Your task to perform on an android device: Clear the shopping cart on amazon. Search for amazon basics triple a on amazon, select the first entry, add it to the cart, then select checkout. Image 0: 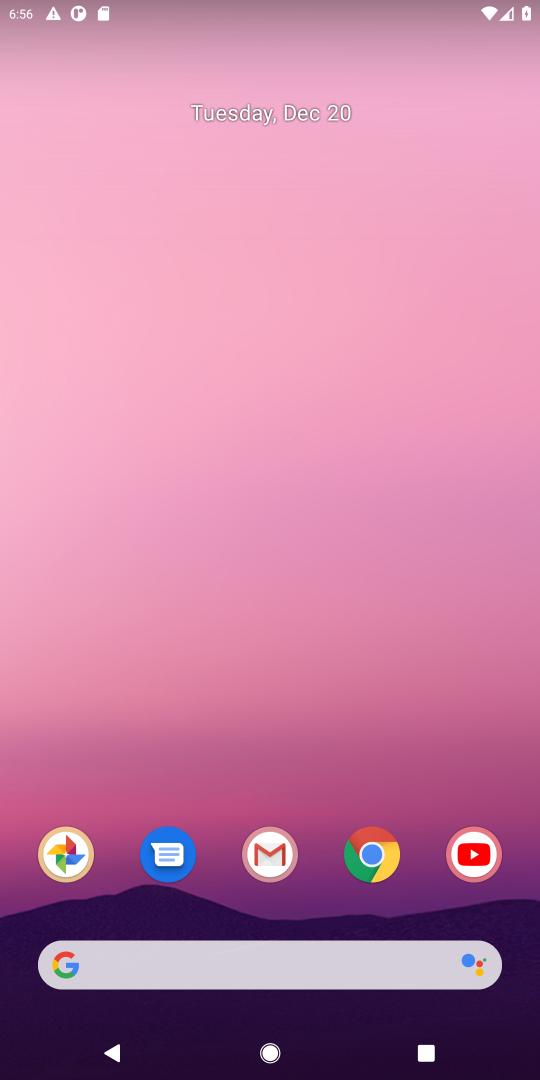
Step 0: click (377, 865)
Your task to perform on an android device: Clear the shopping cart on amazon. Search for amazon basics triple a on amazon, select the first entry, add it to the cart, then select checkout. Image 1: 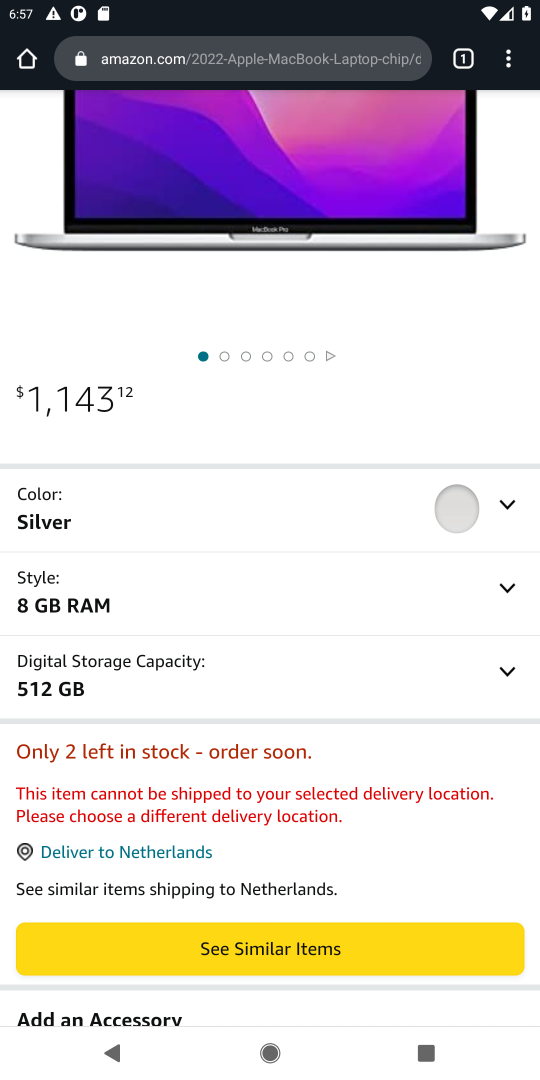
Step 1: drag from (313, 322) to (310, 823)
Your task to perform on an android device: Clear the shopping cart on amazon. Search for amazon basics triple a on amazon, select the first entry, add it to the cart, then select checkout. Image 2: 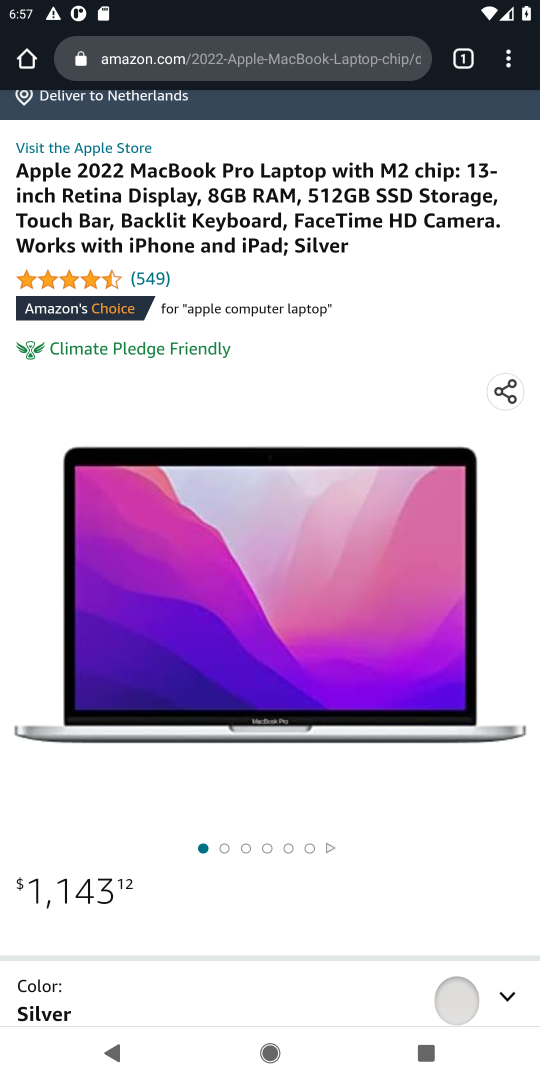
Step 2: drag from (331, 174) to (350, 603)
Your task to perform on an android device: Clear the shopping cart on amazon. Search for amazon basics triple a on amazon, select the first entry, add it to the cart, then select checkout. Image 3: 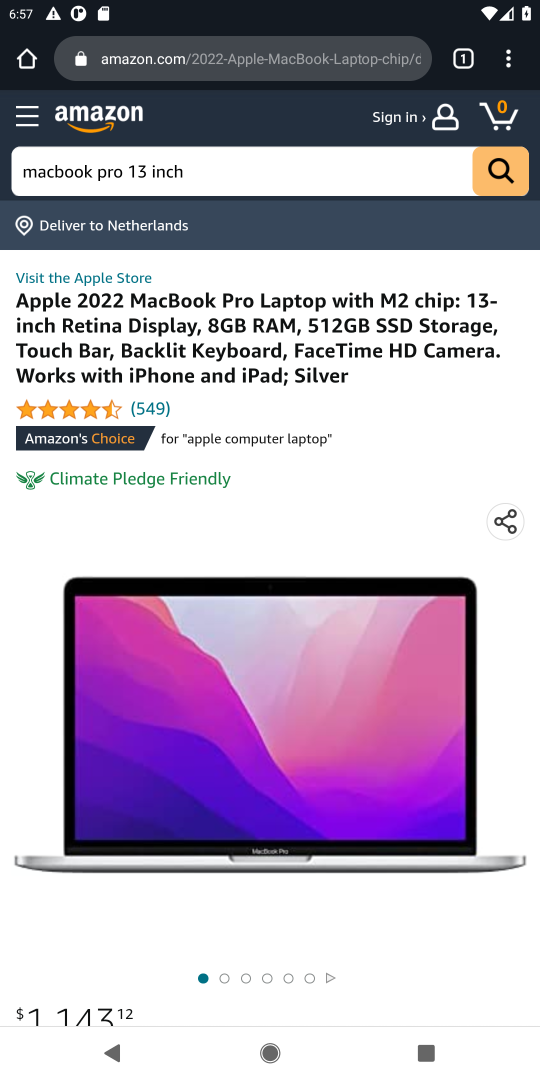
Step 3: click (511, 119)
Your task to perform on an android device: Clear the shopping cart on amazon. Search for amazon basics triple a on amazon, select the first entry, add it to the cart, then select checkout. Image 4: 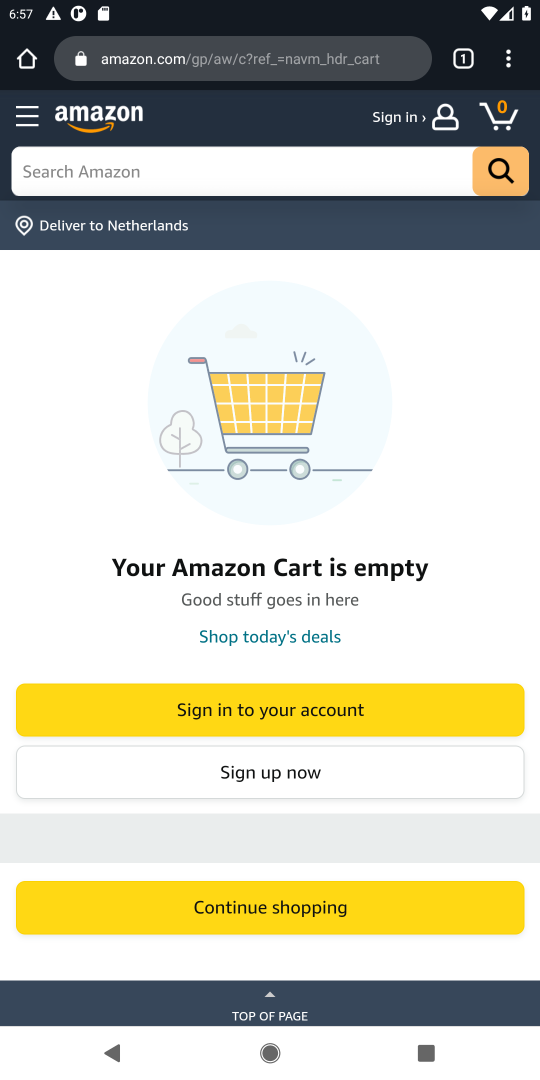
Step 4: click (72, 176)
Your task to perform on an android device: Clear the shopping cart on amazon. Search for amazon basics triple a on amazon, select the first entry, add it to the cart, then select checkout. Image 5: 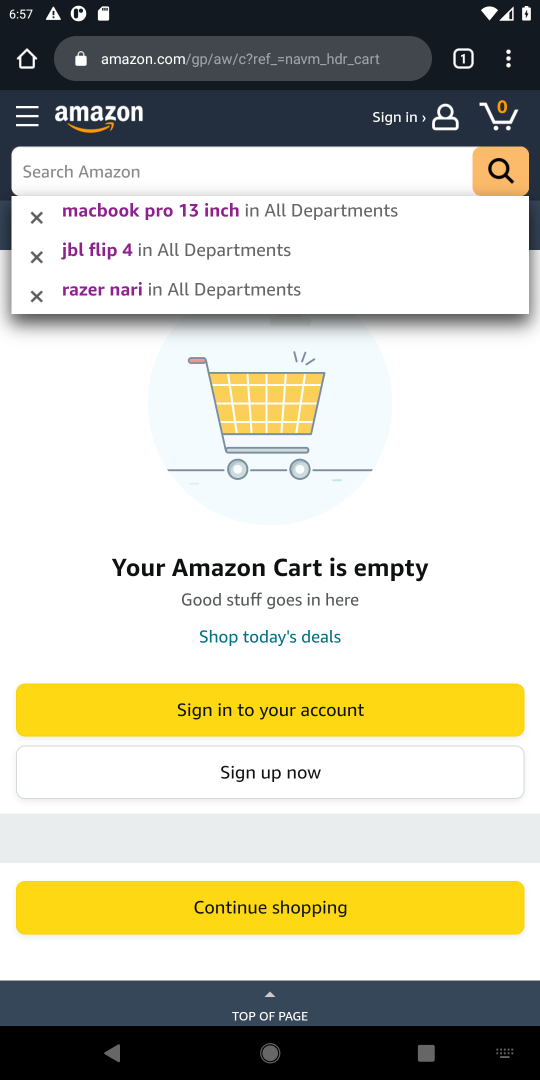
Step 5: type "amazon basics triple a "
Your task to perform on an android device: Clear the shopping cart on amazon. Search for amazon basics triple a on amazon, select the first entry, add it to the cart, then select checkout. Image 6: 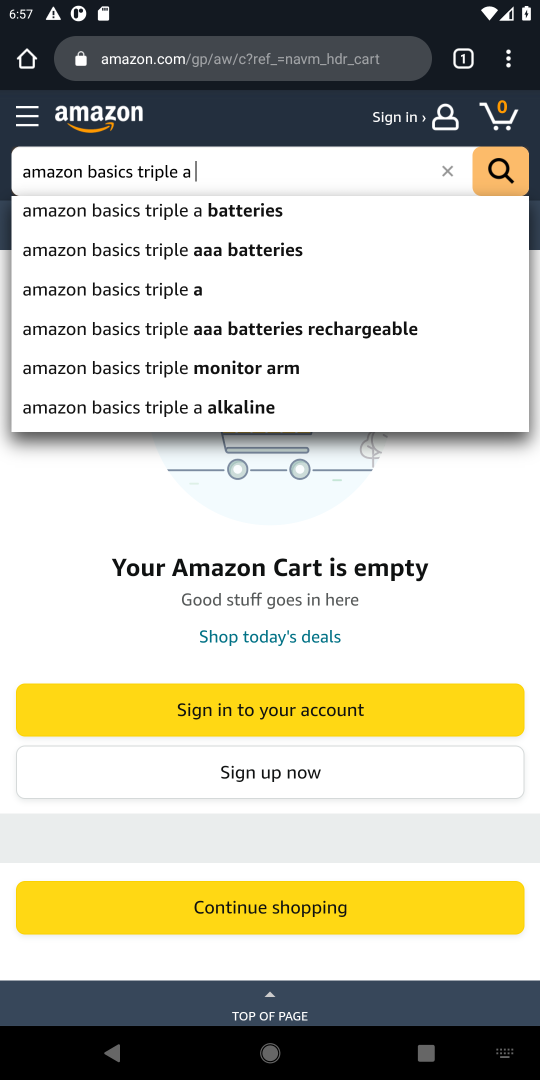
Step 6: click (162, 219)
Your task to perform on an android device: Clear the shopping cart on amazon. Search for amazon basics triple a on amazon, select the first entry, add it to the cart, then select checkout. Image 7: 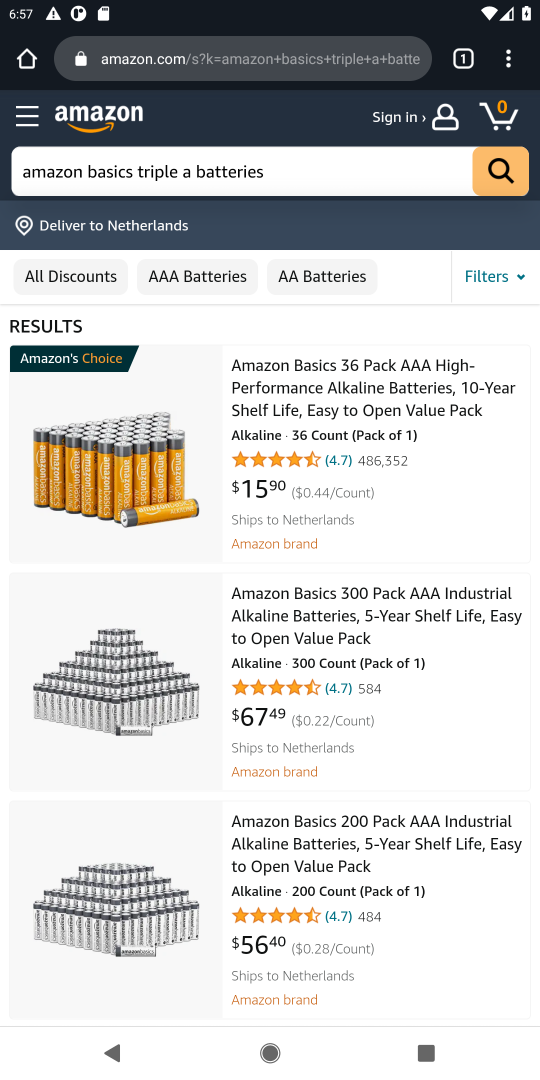
Step 7: click (325, 450)
Your task to perform on an android device: Clear the shopping cart on amazon. Search for amazon basics triple a on amazon, select the first entry, add it to the cart, then select checkout. Image 8: 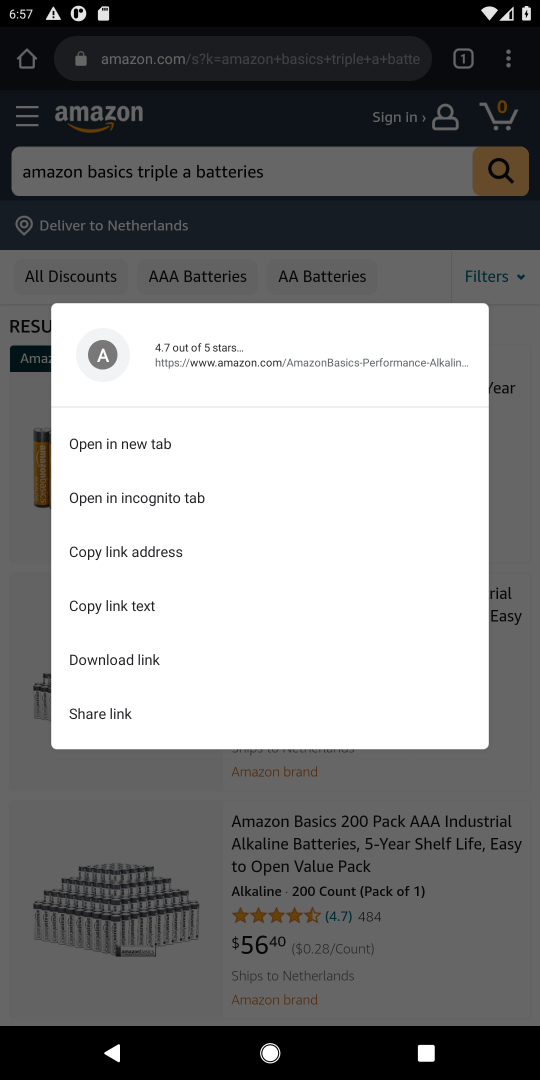
Step 8: click (498, 392)
Your task to perform on an android device: Clear the shopping cart on amazon. Search for amazon basics triple a on amazon, select the first entry, add it to the cart, then select checkout. Image 9: 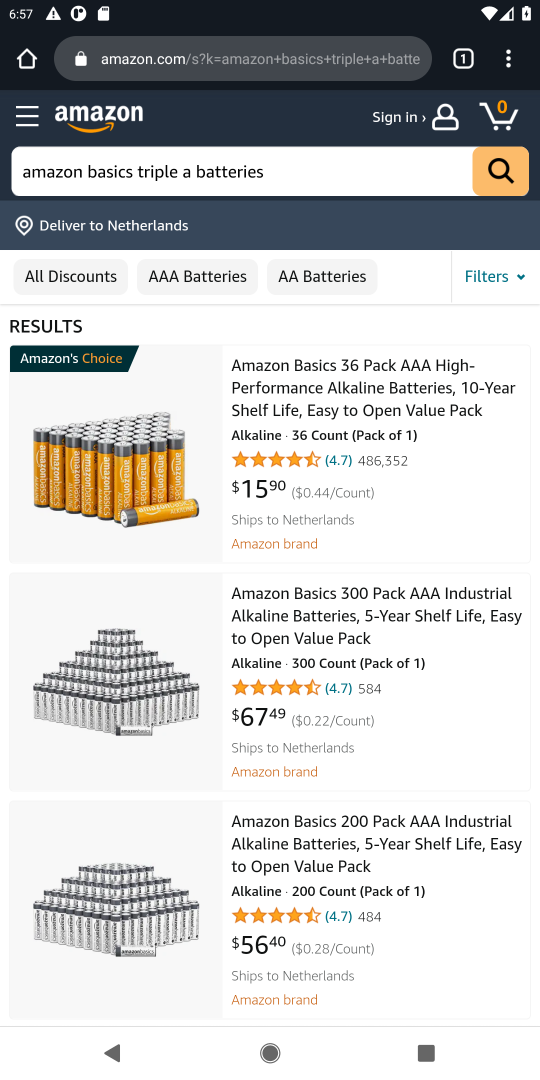
Step 9: click (378, 388)
Your task to perform on an android device: Clear the shopping cart on amazon. Search for amazon basics triple a on amazon, select the first entry, add it to the cart, then select checkout. Image 10: 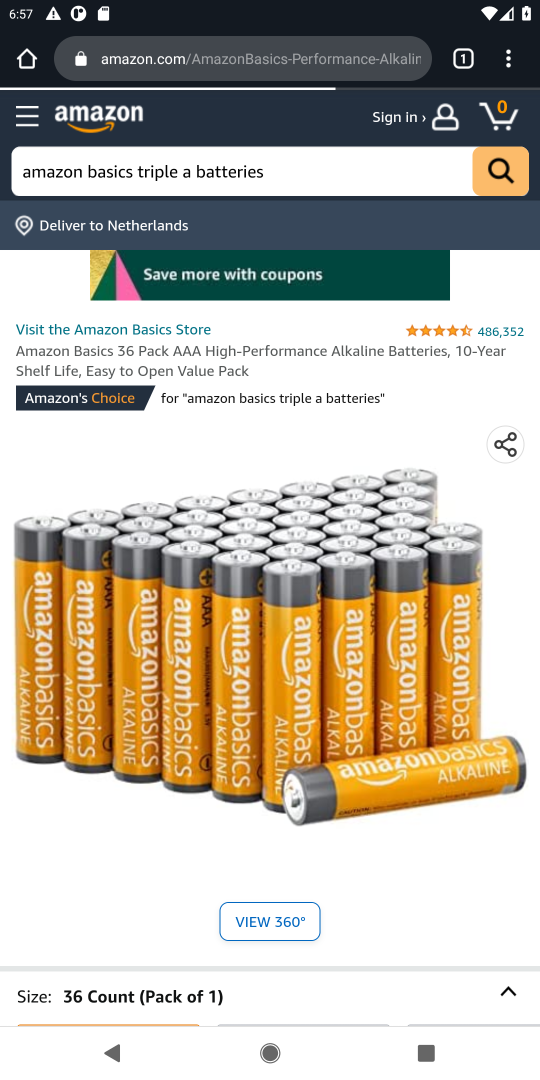
Step 10: drag from (280, 702) to (291, 162)
Your task to perform on an android device: Clear the shopping cart on amazon. Search for amazon basics triple a on amazon, select the first entry, add it to the cart, then select checkout. Image 11: 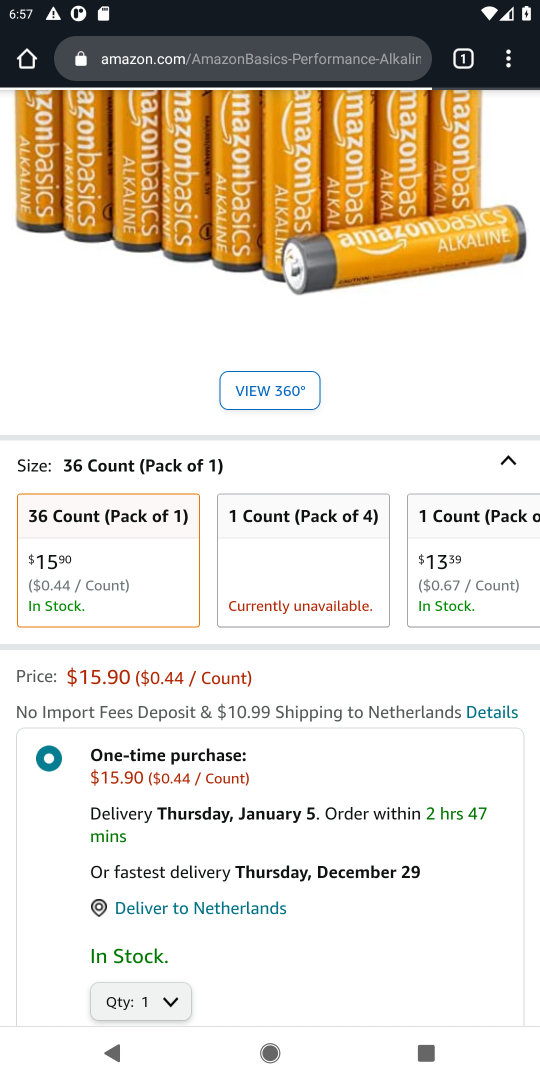
Step 11: drag from (231, 736) to (233, 319)
Your task to perform on an android device: Clear the shopping cart on amazon. Search for amazon basics triple a on amazon, select the first entry, add it to the cart, then select checkout. Image 12: 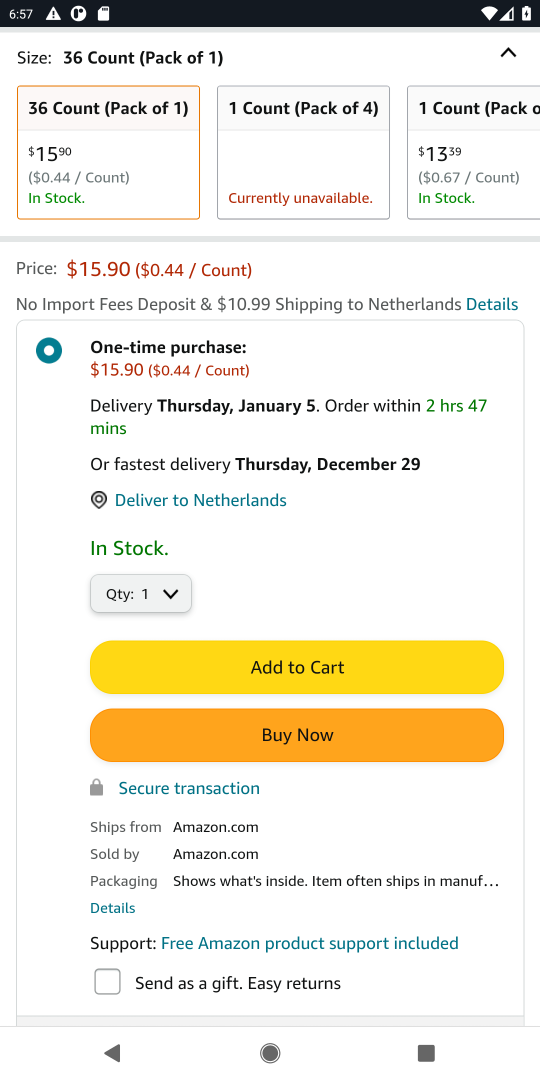
Step 12: click (254, 672)
Your task to perform on an android device: Clear the shopping cart on amazon. Search for amazon basics triple a on amazon, select the first entry, add it to the cart, then select checkout. Image 13: 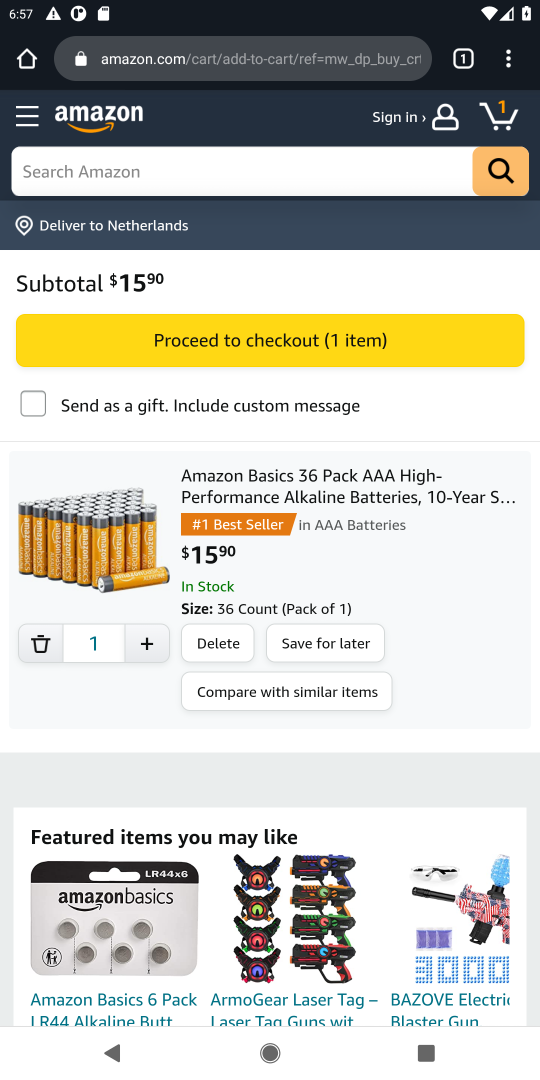
Step 13: click (256, 339)
Your task to perform on an android device: Clear the shopping cart on amazon. Search for amazon basics triple a on amazon, select the first entry, add it to the cart, then select checkout. Image 14: 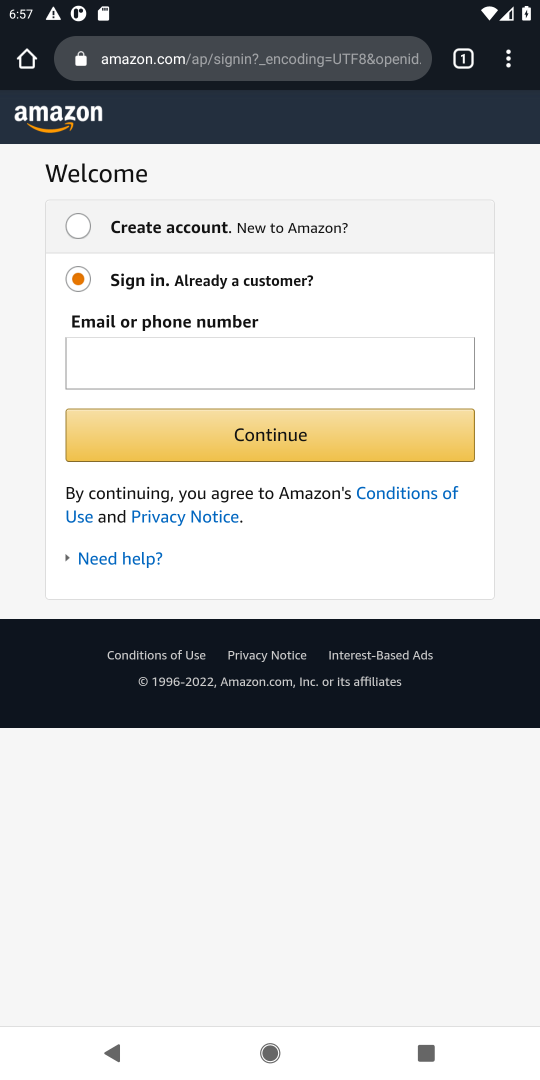
Step 14: task complete